Your task to perform on an android device: set default search engine in the chrome app Image 0: 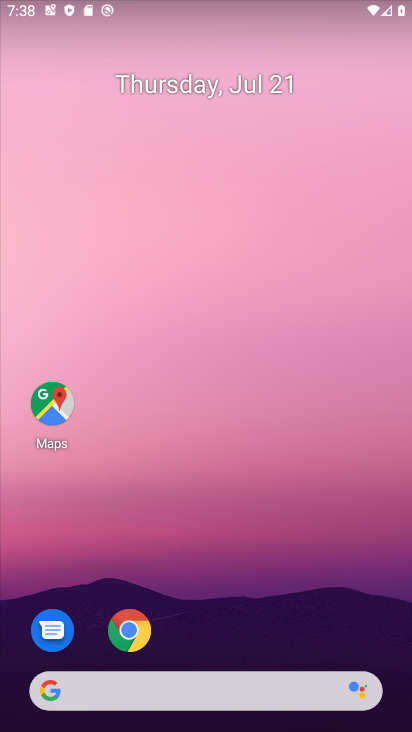
Step 0: click (137, 634)
Your task to perform on an android device: set default search engine in the chrome app Image 1: 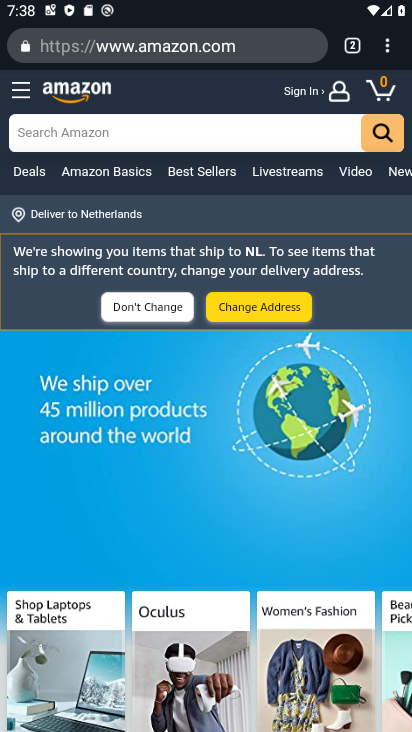
Step 1: click (384, 40)
Your task to perform on an android device: set default search engine in the chrome app Image 2: 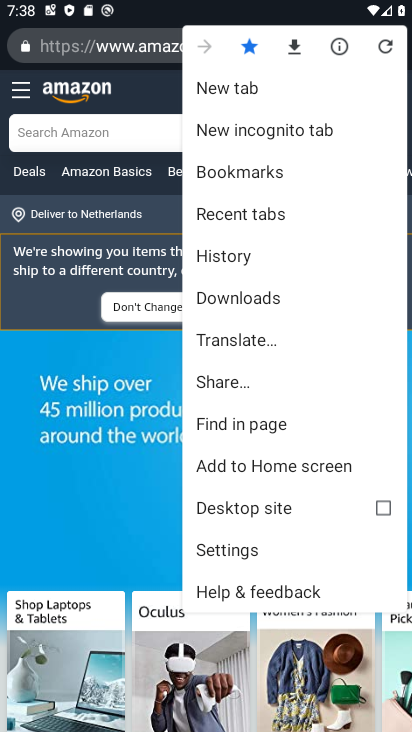
Step 2: click (265, 540)
Your task to perform on an android device: set default search engine in the chrome app Image 3: 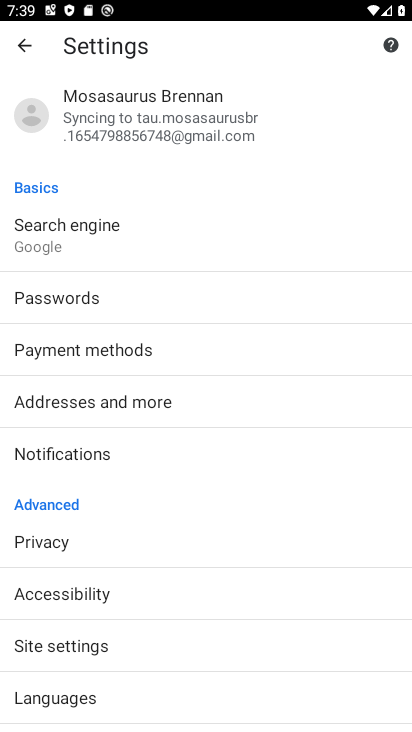
Step 3: click (144, 227)
Your task to perform on an android device: set default search engine in the chrome app Image 4: 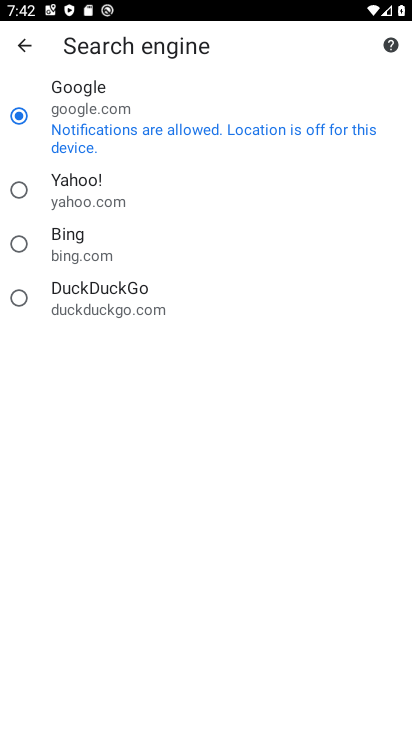
Step 4: task complete